Your task to perform on an android device: Open sound settings Image 0: 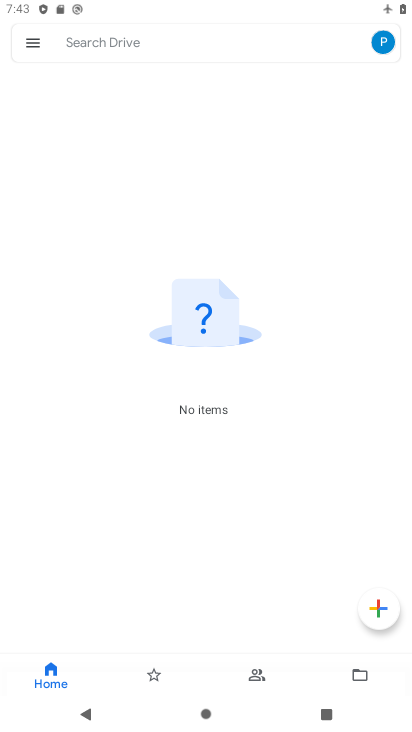
Step 0: press home button
Your task to perform on an android device: Open sound settings Image 1: 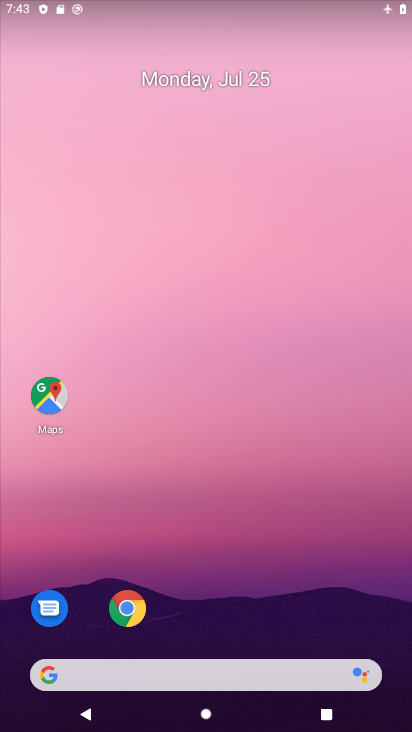
Step 1: drag from (275, 598) to (305, 76)
Your task to perform on an android device: Open sound settings Image 2: 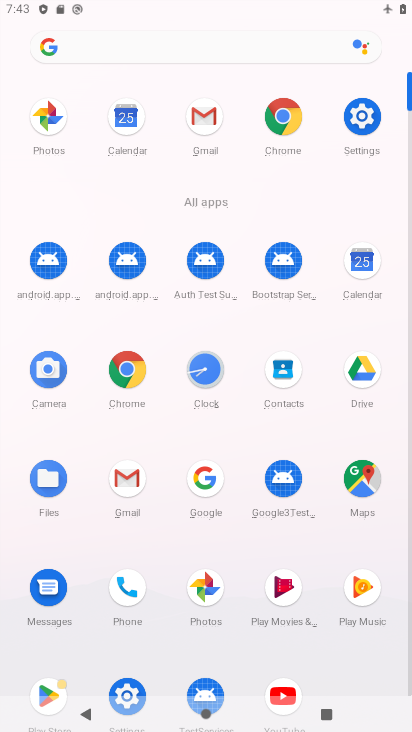
Step 2: click (359, 121)
Your task to perform on an android device: Open sound settings Image 3: 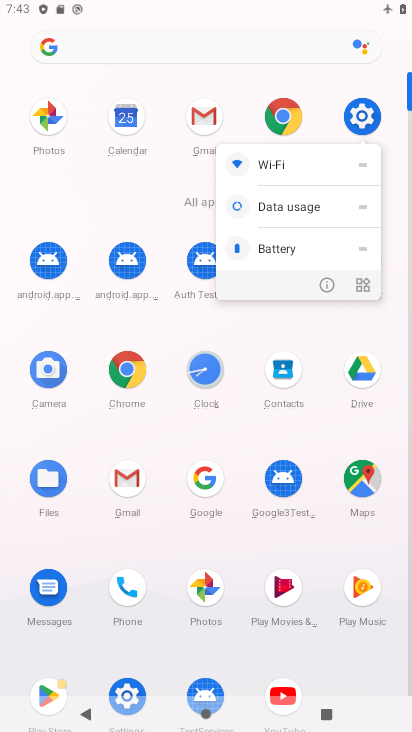
Step 3: click (362, 118)
Your task to perform on an android device: Open sound settings Image 4: 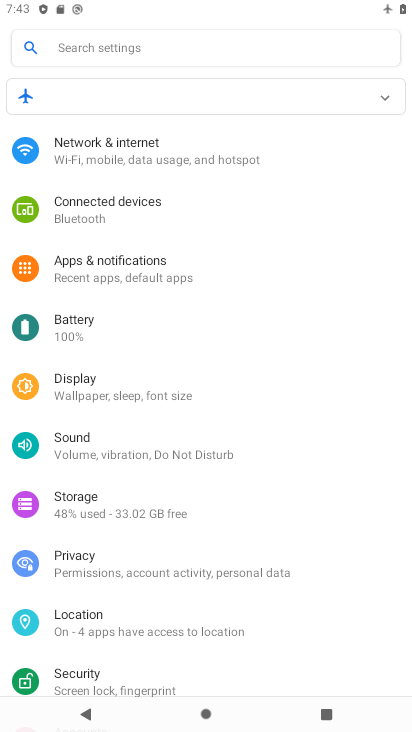
Step 4: click (109, 449)
Your task to perform on an android device: Open sound settings Image 5: 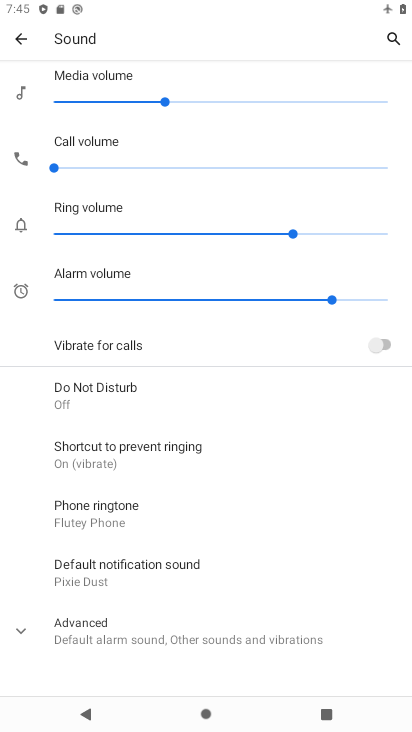
Step 5: task complete